Your task to perform on an android device: Open maps Image 0: 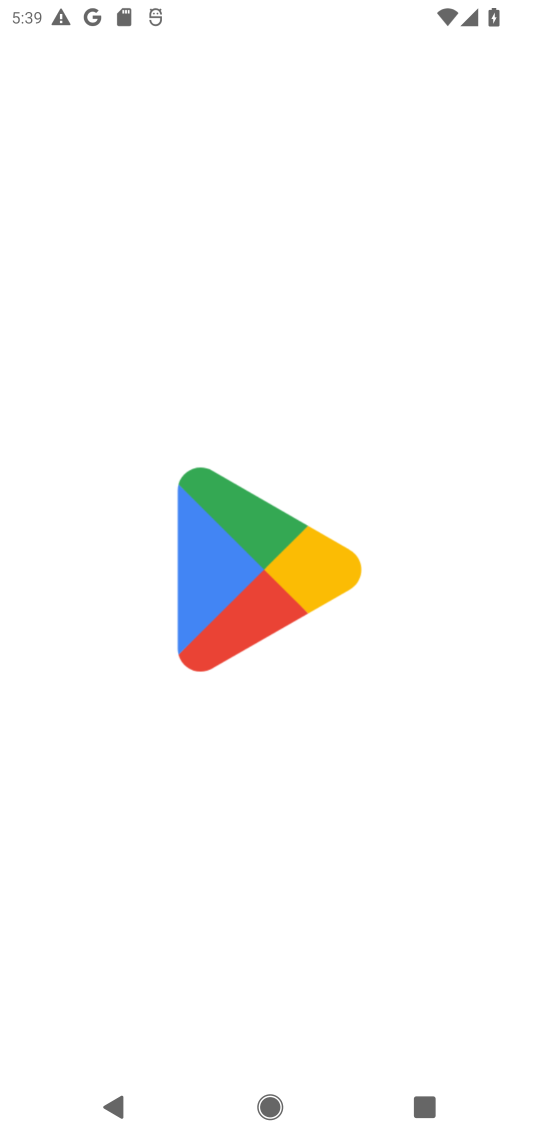
Step 0: press home button
Your task to perform on an android device: Open maps Image 1: 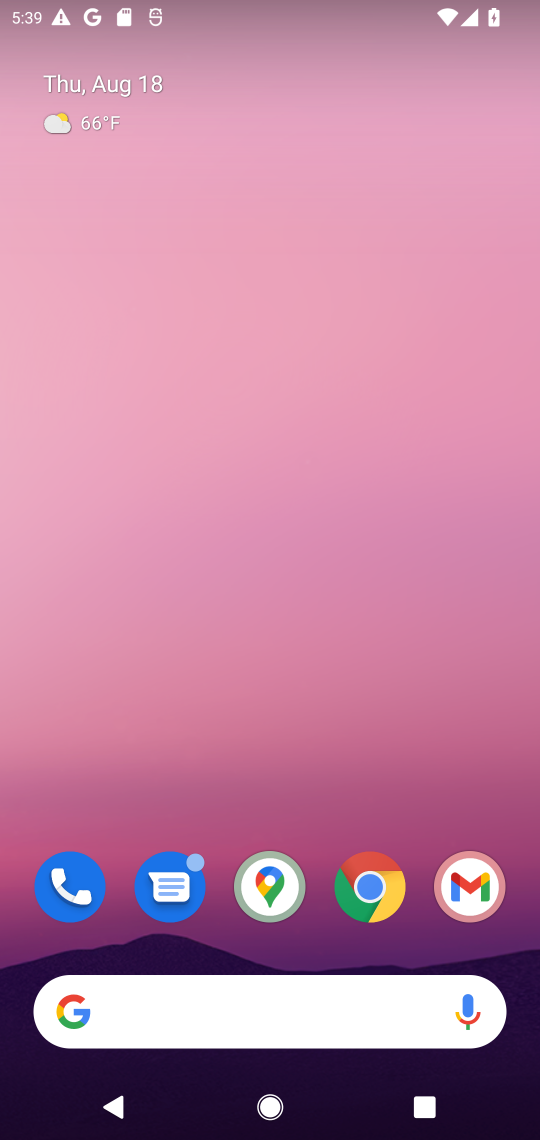
Step 1: click (266, 908)
Your task to perform on an android device: Open maps Image 2: 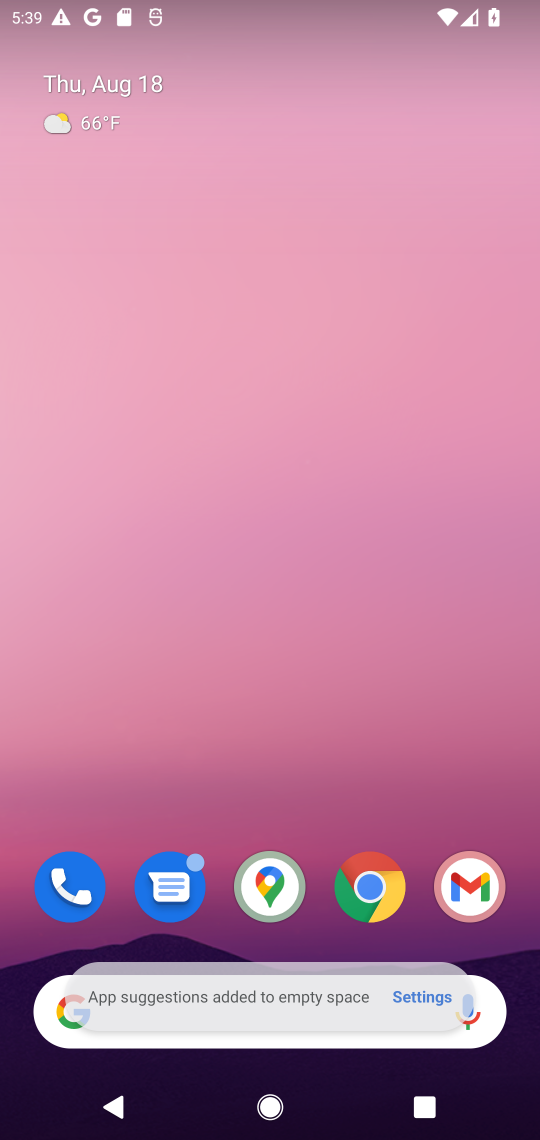
Step 2: click (266, 908)
Your task to perform on an android device: Open maps Image 3: 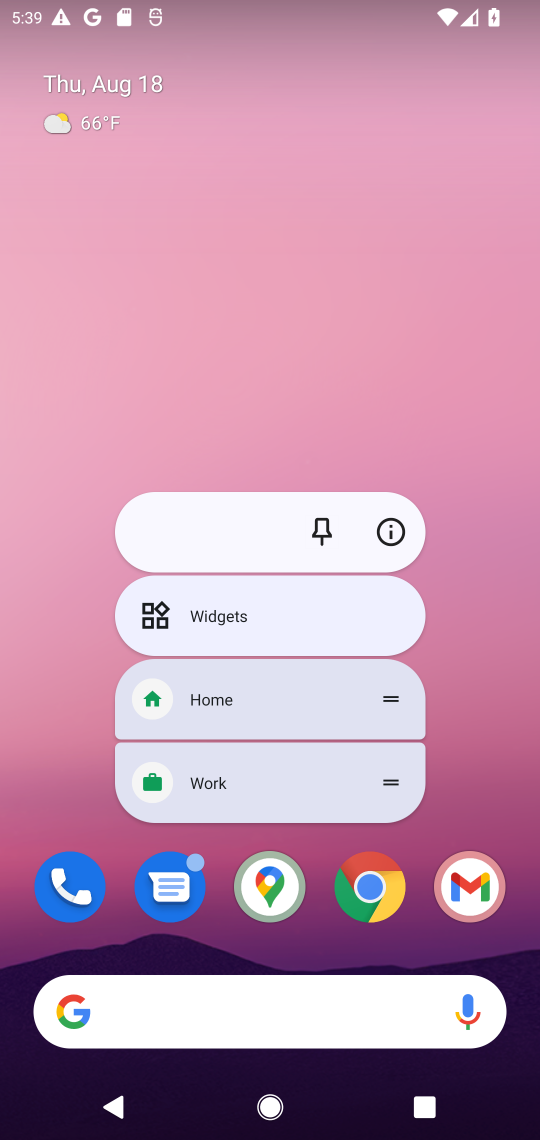
Step 3: task complete